Your task to perform on an android device: change the clock display to digital Image 0: 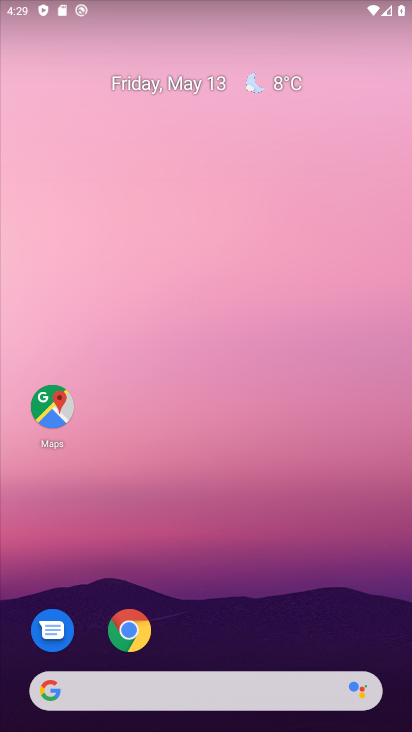
Step 0: drag from (212, 645) to (335, 115)
Your task to perform on an android device: change the clock display to digital Image 1: 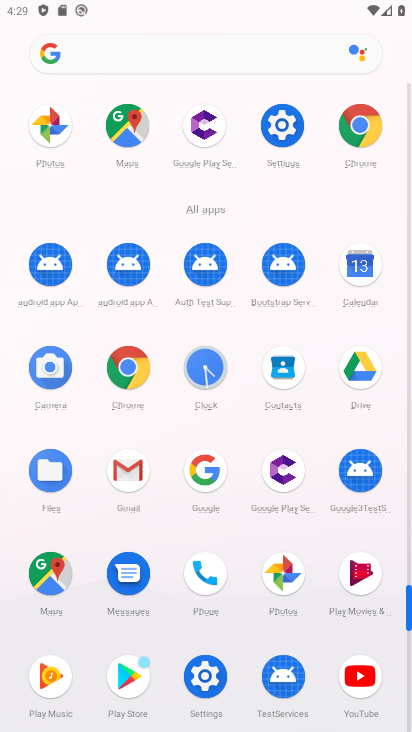
Step 1: click (191, 367)
Your task to perform on an android device: change the clock display to digital Image 2: 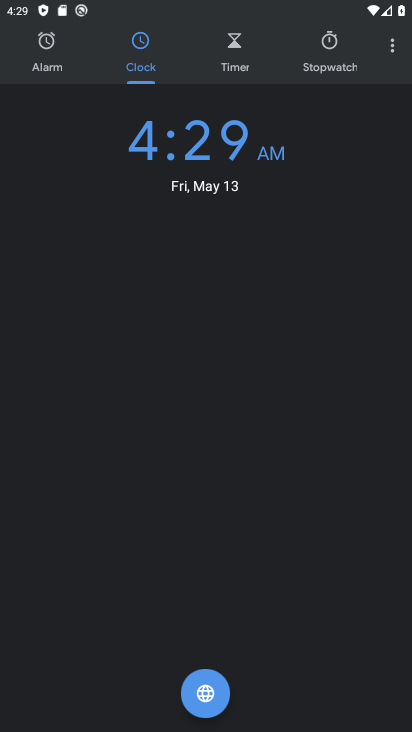
Step 2: click (389, 57)
Your task to perform on an android device: change the clock display to digital Image 3: 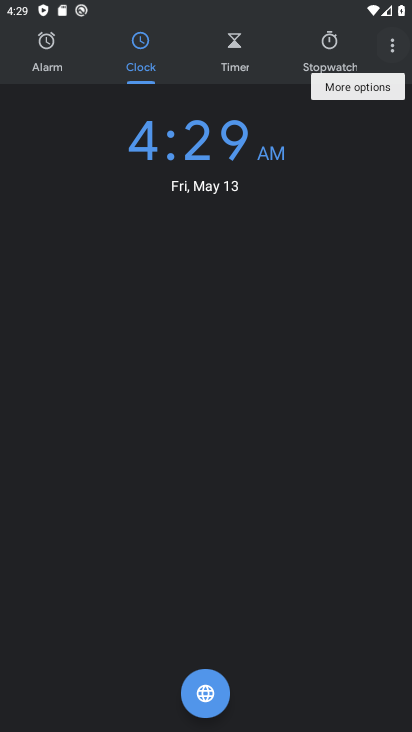
Step 3: click (388, 44)
Your task to perform on an android device: change the clock display to digital Image 4: 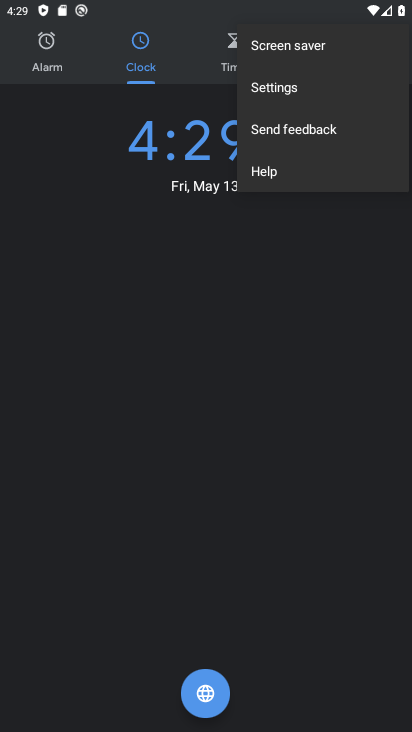
Step 4: click (347, 83)
Your task to perform on an android device: change the clock display to digital Image 5: 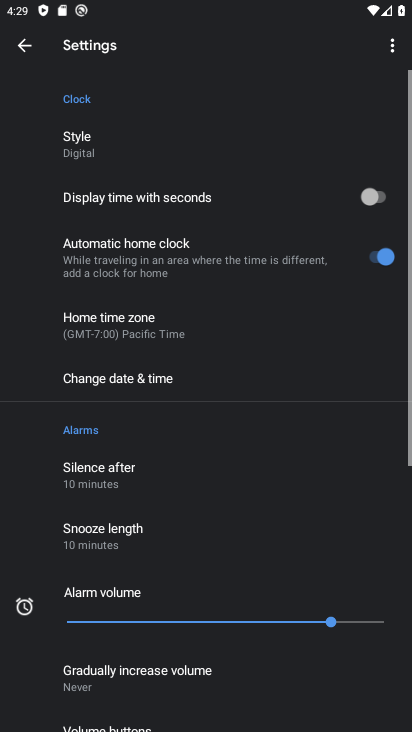
Step 5: click (246, 132)
Your task to perform on an android device: change the clock display to digital Image 6: 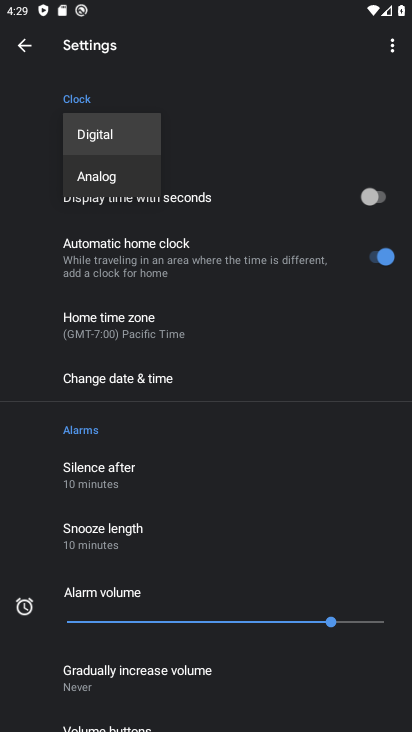
Step 6: task complete